Your task to perform on an android device: Open calendar and show me the fourth week of next month Image 0: 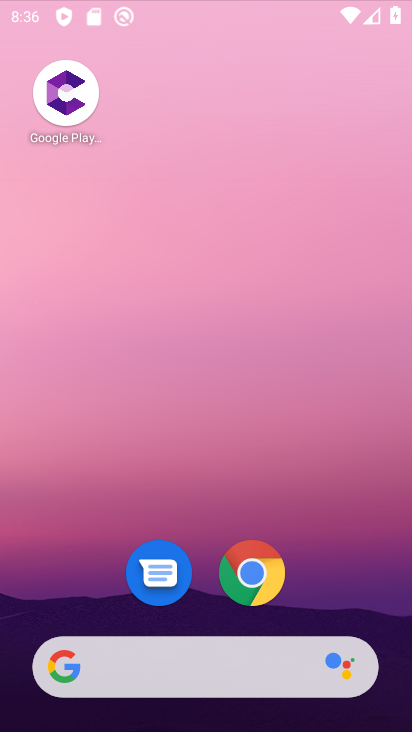
Step 0: click (133, 648)
Your task to perform on an android device: Open calendar and show me the fourth week of next month Image 1: 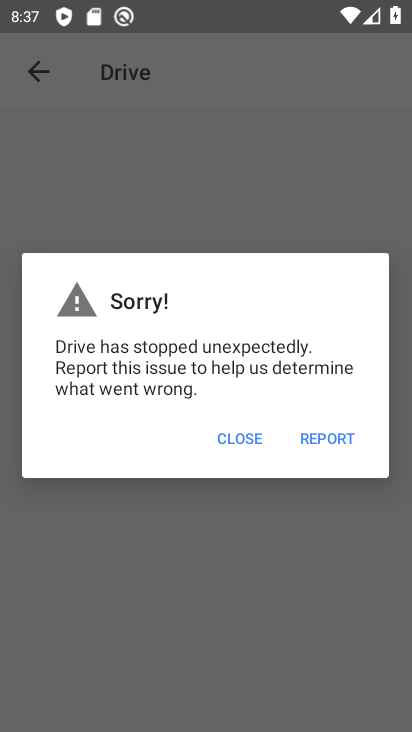
Step 1: press home button
Your task to perform on an android device: Open calendar and show me the fourth week of next month Image 2: 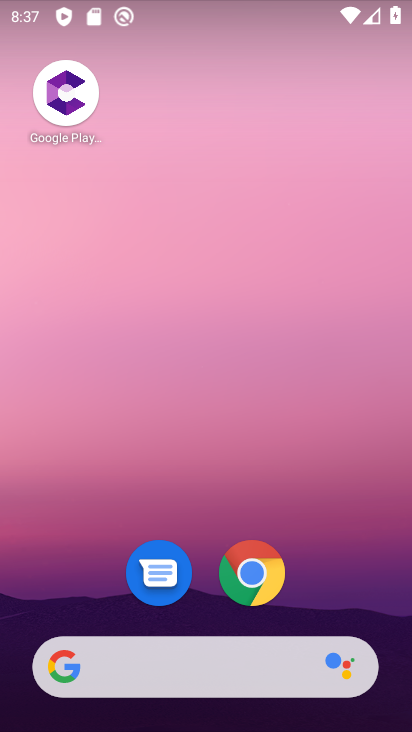
Step 2: drag from (196, 718) to (198, 3)
Your task to perform on an android device: Open calendar and show me the fourth week of next month Image 3: 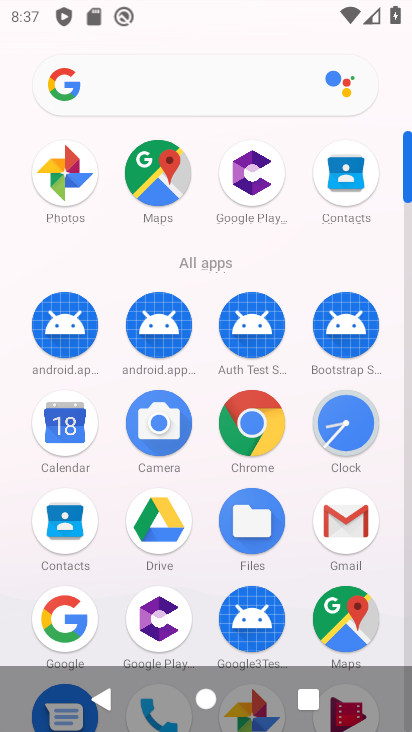
Step 3: click (51, 416)
Your task to perform on an android device: Open calendar and show me the fourth week of next month Image 4: 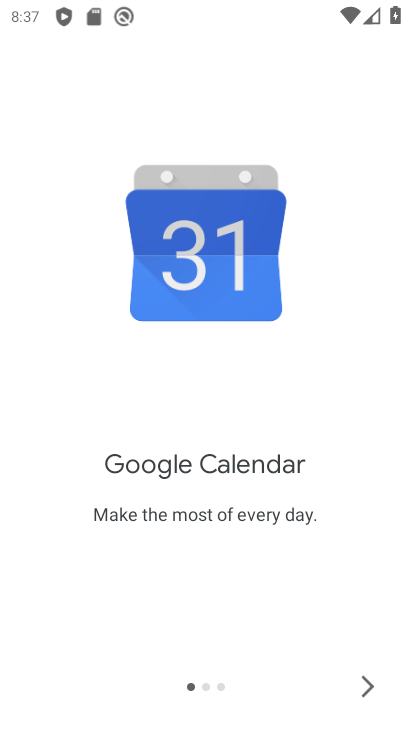
Step 4: click (375, 675)
Your task to perform on an android device: Open calendar and show me the fourth week of next month Image 5: 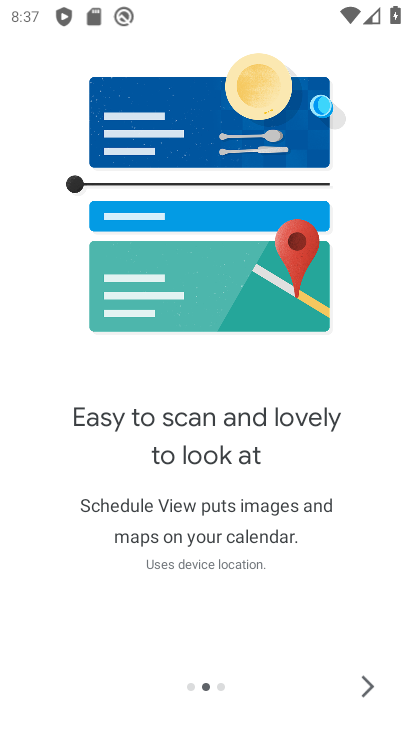
Step 5: click (375, 675)
Your task to perform on an android device: Open calendar and show me the fourth week of next month Image 6: 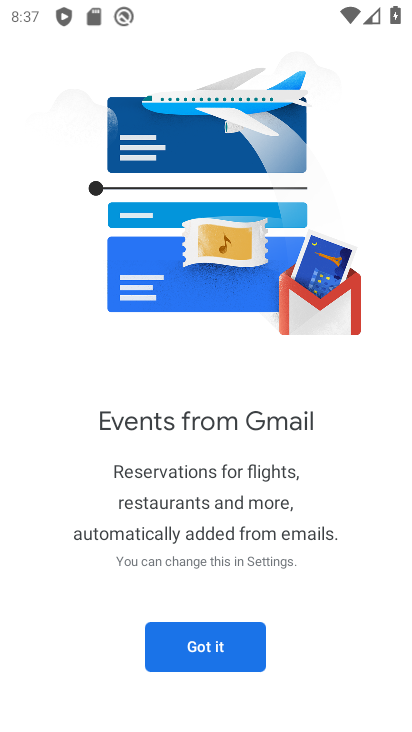
Step 6: click (194, 660)
Your task to perform on an android device: Open calendar and show me the fourth week of next month Image 7: 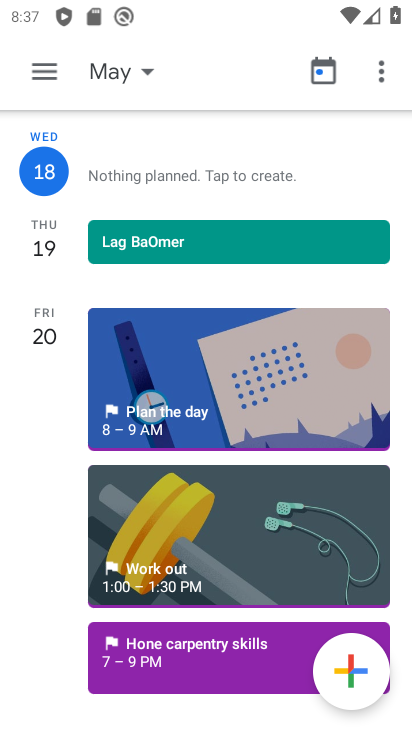
Step 7: click (106, 77)
Your task to perform on an android device: Open calendar and show me the fourth week of next month Image 8: 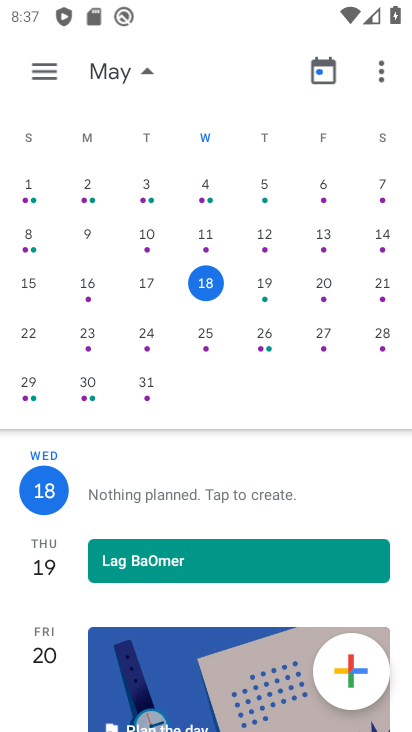
Step 8: drag from (327, 208) to (6, 277)
Your task to perform on an android device: Open calendar and show me the fourth week of next month Image 9: 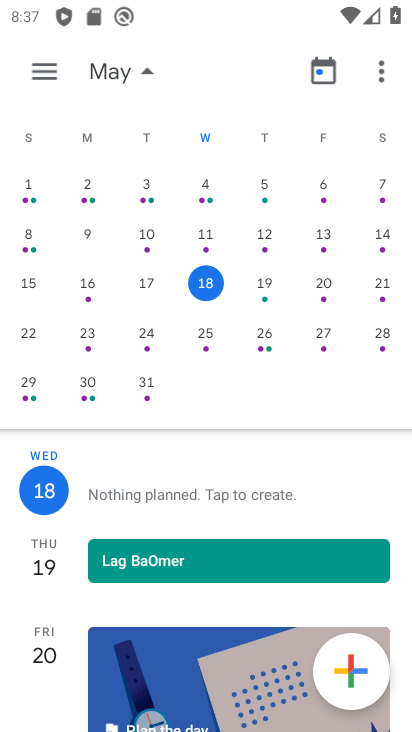
Step 9: drag from (297, 377) to (88, 269)
Your task to perform on an android device: Open calendar and show me the fourth week of next month Image 10: 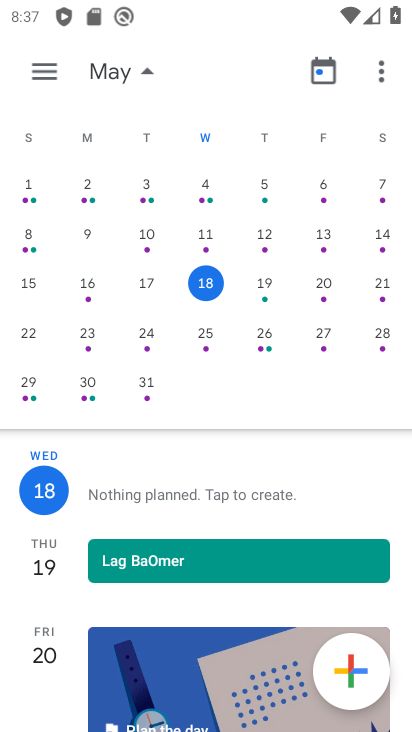
Step 10: drag from (363, 194) to (15, 200)
Your task to perform on an android device: Open calendar and show me the fourth week of next month Image 11: 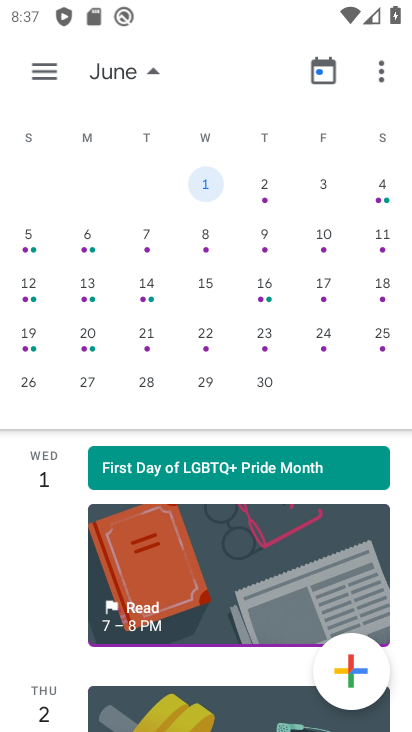
Step 11: click (30, 334)
Your task to perform on an android device: Open calendar and show me the fourth week of next month Image 12: 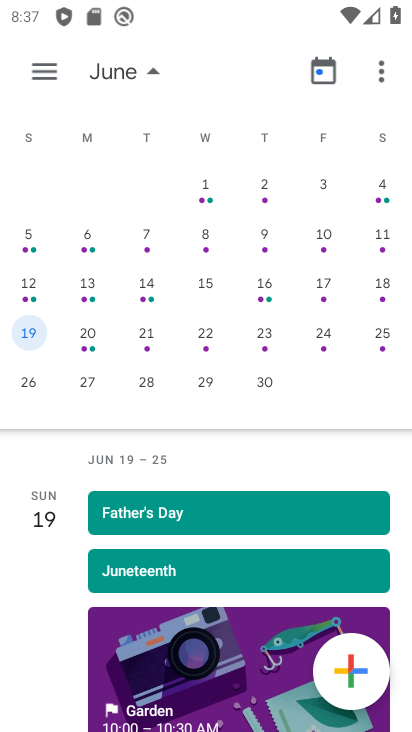
Step 12: task complete